Your task to perform on an android device: Go to Maps Image 0: 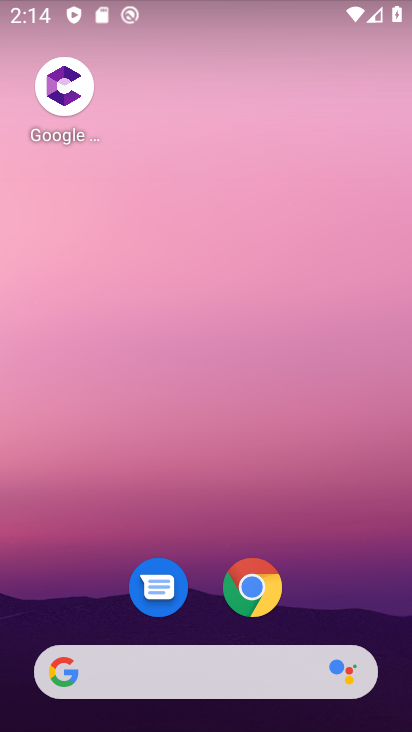
Step 0: drag from (353, 605) to (290, 209)
Your task to perform on an android device: Go to Maps Image 1: 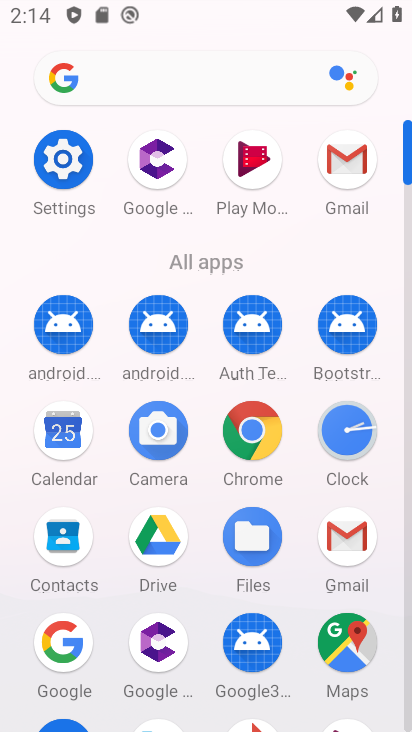
Step 1: click (337, 647)
Your task to perform on an android device: Go to Maps Image 2: 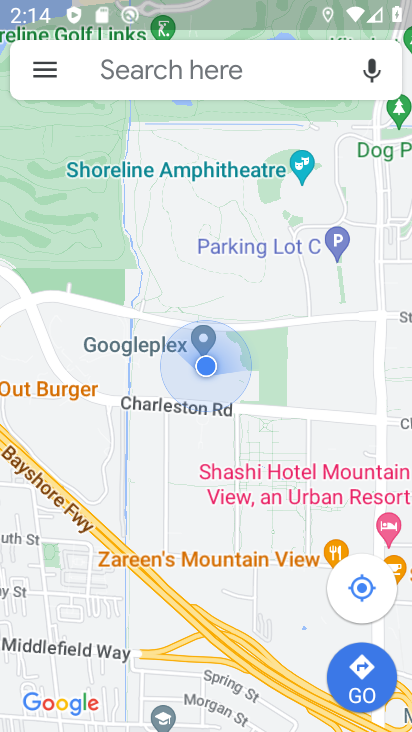
Step 2: task complete